Your task to perform on an android device: Go to Reddit.com Image 0: 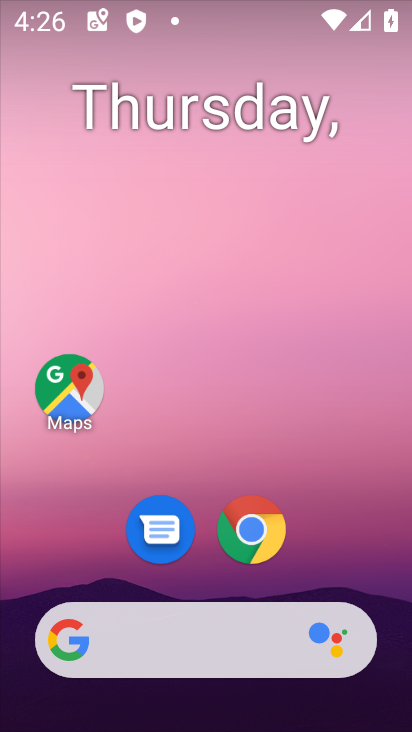
Step 0: click (253, 538)
Your task to perform on an android device: Go to Reddit.com Image 1: 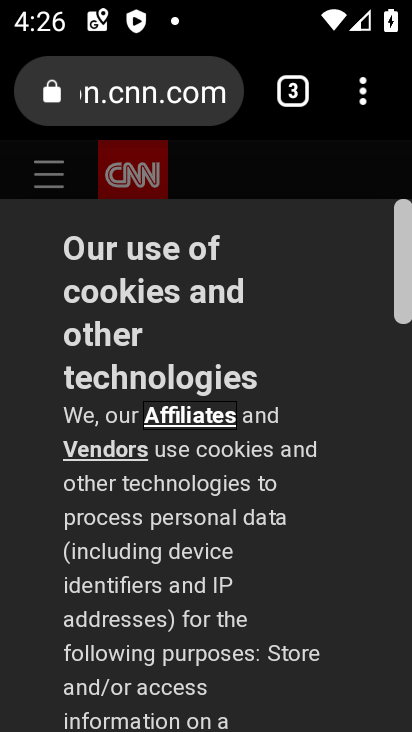
Step 1: click (365, 105)
Your task to perform on an android device: Go to Reddit.com Image 2: 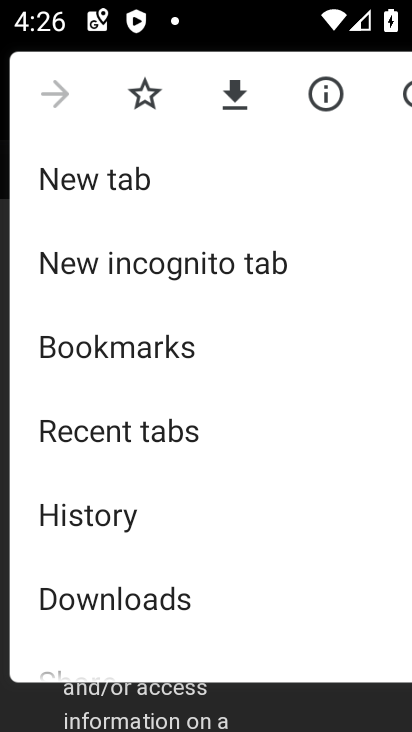
Step 2: click (130, 180)
Your task to perform on an android device: Go to Reddit.com Image 3: 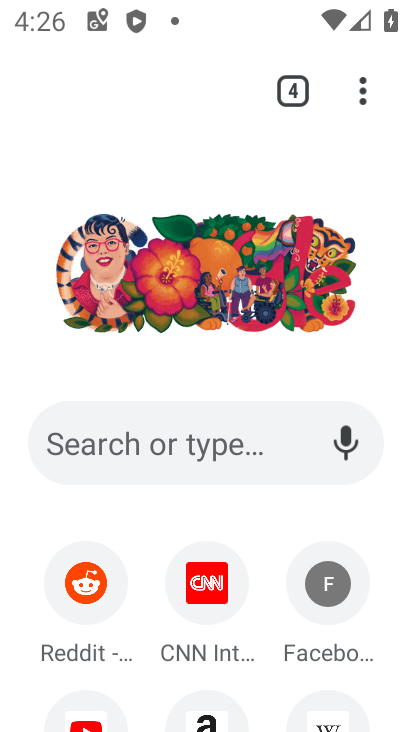
Step 3: click (79, 575)
Your task to perform on an android device: Go to Reddit.com Image 4: 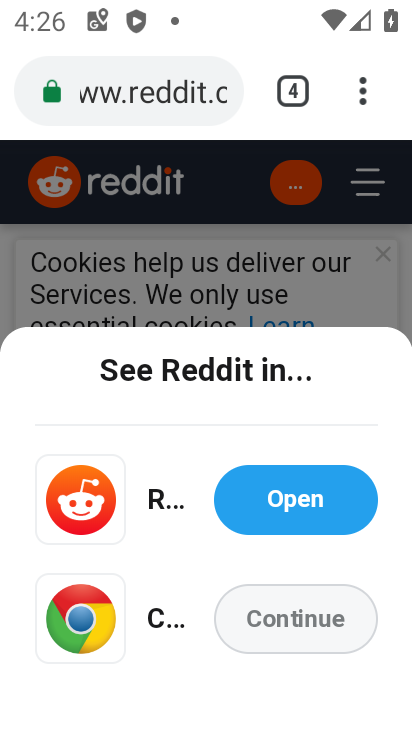
Step 4: task complete